Your task to perform on an android device: What's on my calendar today? Image 0: 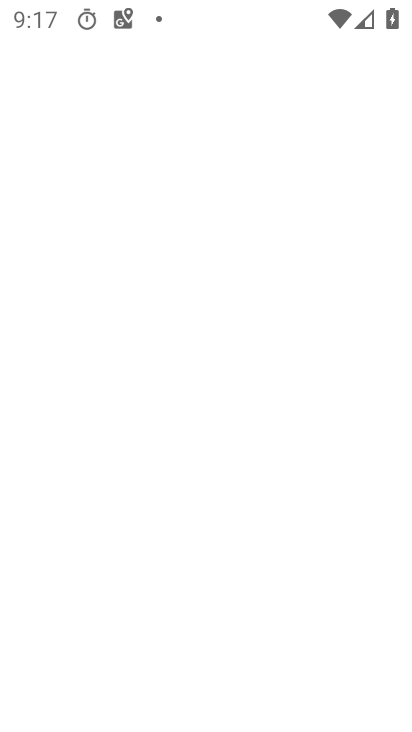
Step 0: press home button
Your task to perform on an android device: What's on my calendar today? Image 1: 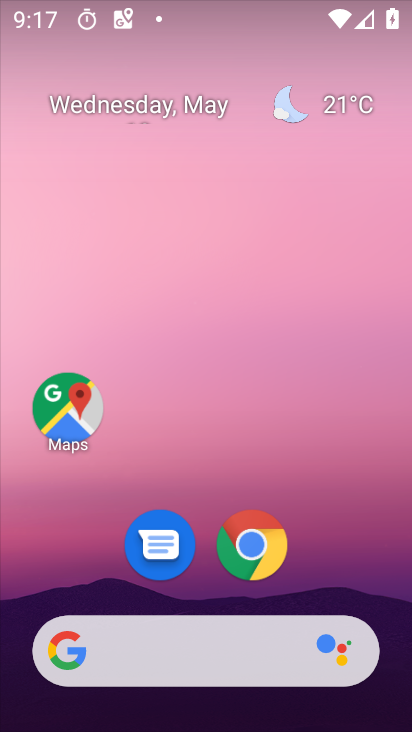
Step 1: drag from (359, 566) to (369, 11)
Your task to perform on an android device: What's on my calendar today? Image 2: 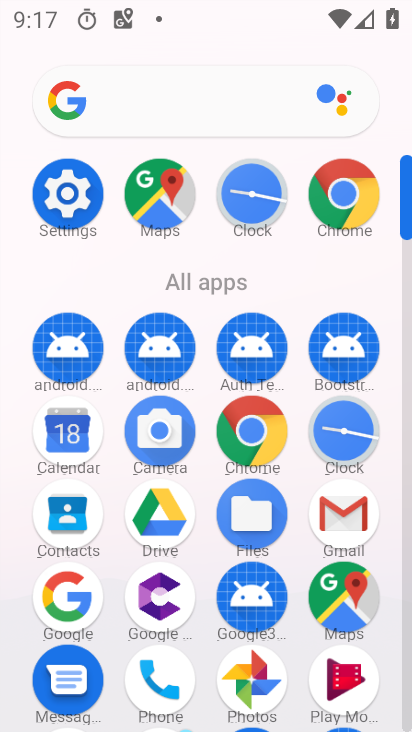
Step 2: click (79, 421)
Your task to perform on an android device: What's on my calendar today? Image 3: 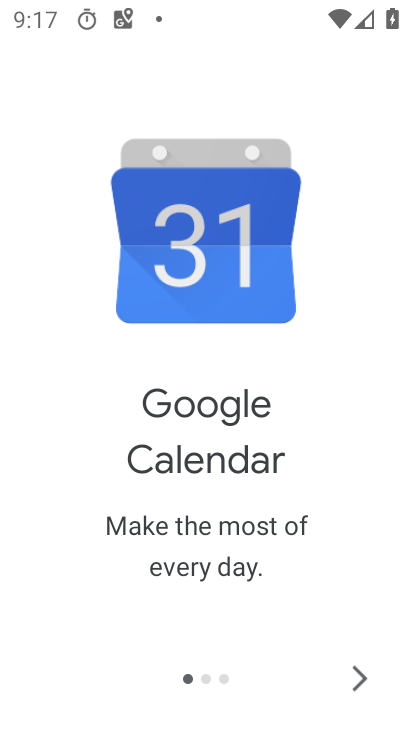
Step 3: click (353, 680)
Your task to perform on an android device: What's on my calendar today? Image 4: 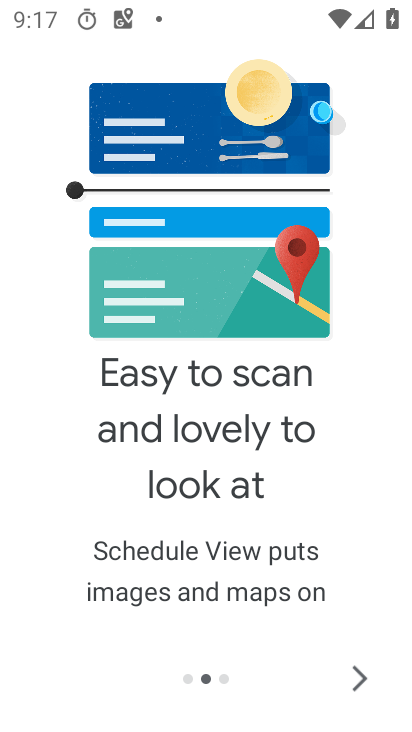
Step 4: click (357, 691)
Your task to perform on an android device: What's on my calendar today? Image 5: 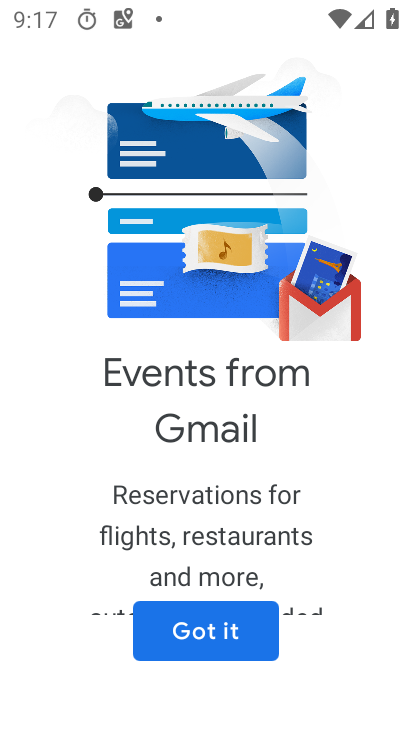
Step 5: click (206, 635)
Your task to perform on an android device: What's on my calendar today? Image 6: 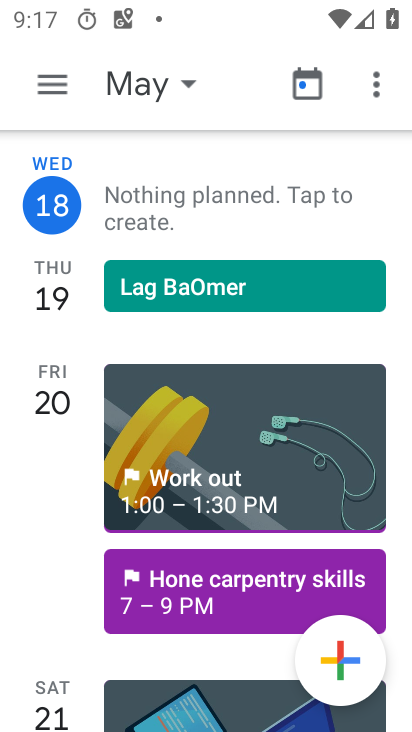
Step 6: click (175, 85)
Your task to perform on an android device: What's on my calendar today? Image 7: 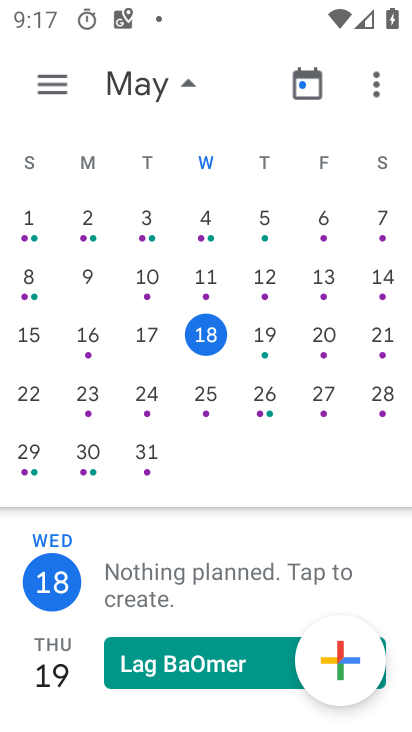
Step 7: click (194, 335)
Your task to perform on an android device: What's on my calendar today? Image 8: 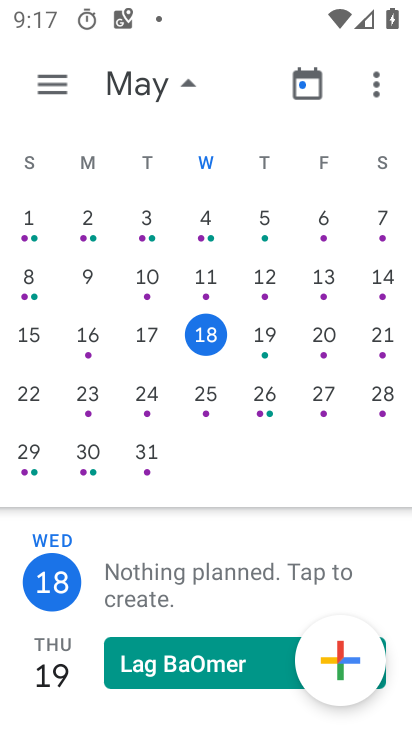
Step 8: task complete